Your task to perform on an android device: turn off improve location accuracy Image 0: 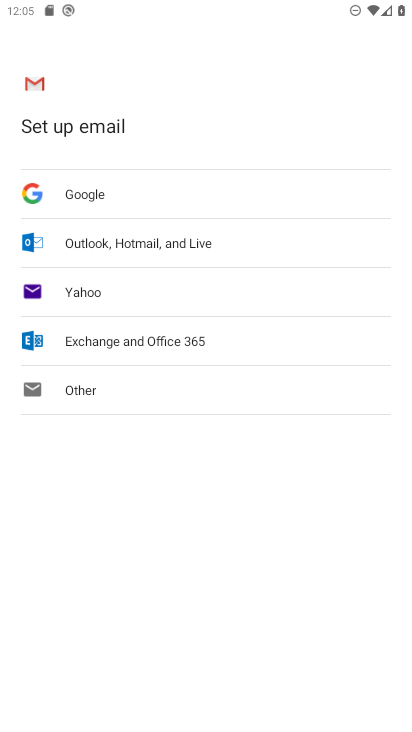
Step 0: press home button
Your task to perform on an android device: turn off improve location accuracy Image 1: 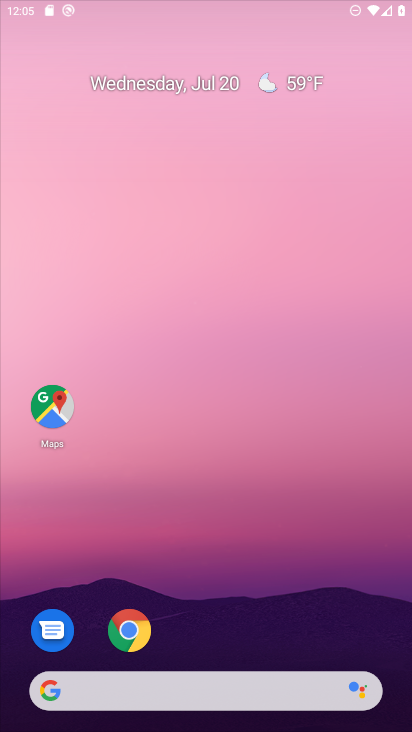
Step 1: drag from (230, 720) to (177, 20)
Your task to perform on an android device: turn off improve location accuracy Image 2: 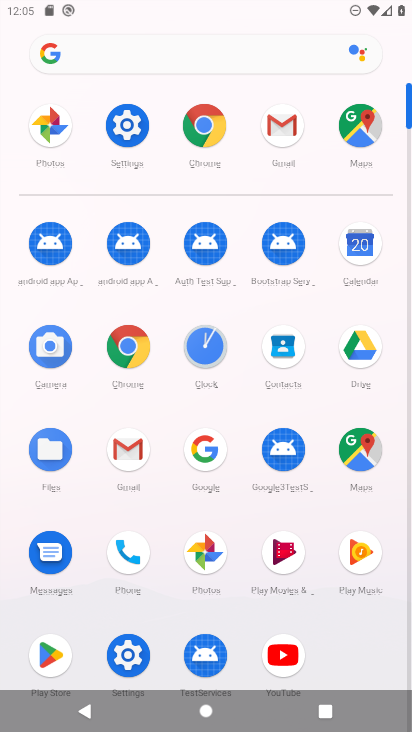
Step 2: click (127, 117)
Your task to perform on an android device: turn off improve location accuracy Image 3: 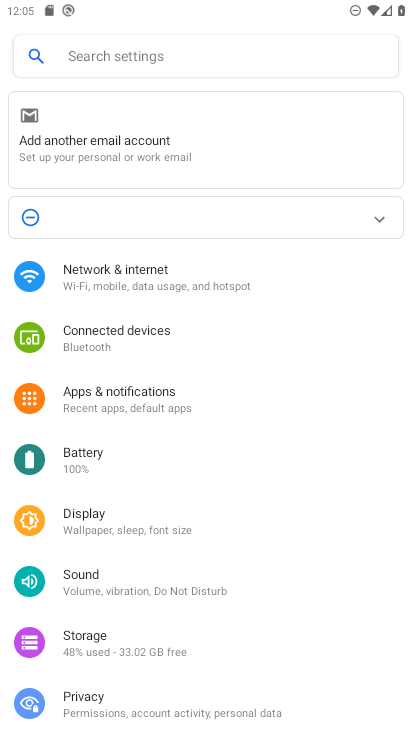
Step 3: drag from (205, 725) to (206, 353)
Your task to perform on an android device: turn off improve location accuracy Image 4: 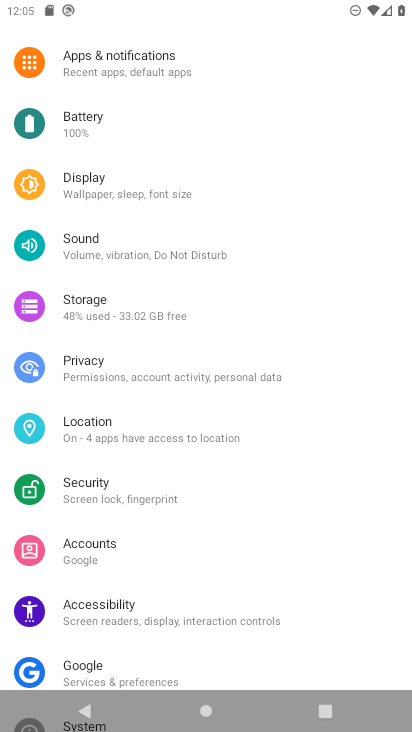
Step 4: click (127, 427)
Your task to perform on an android device: turn off improve location accuracy Image 5: 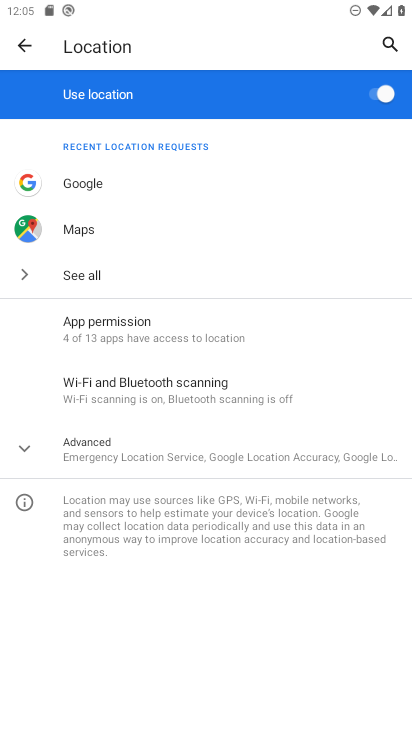
Step 5: click (105, 458)
Your task to perform on an android device: turn off improve location accuracy Image 6: 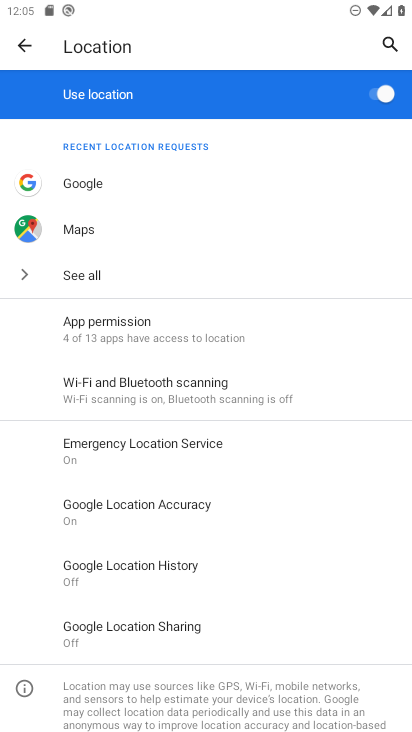
Step 6: click (161, 509)
Your task to perform on an android device: turn off improve location accuracy Image 7: 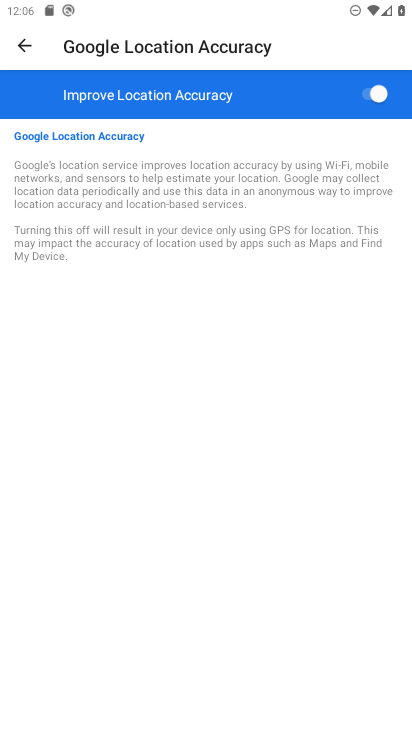
Step 7: click (368, 96)
Your task to perform on an android device: turn off improve location accuracy Image 8: 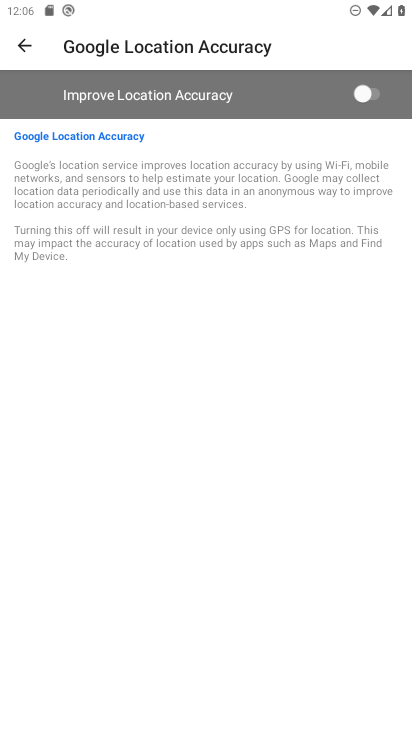
Step 8: task complete